Your task to perform on an android device: Search for seafood restaurants on Google Maps Image 0: 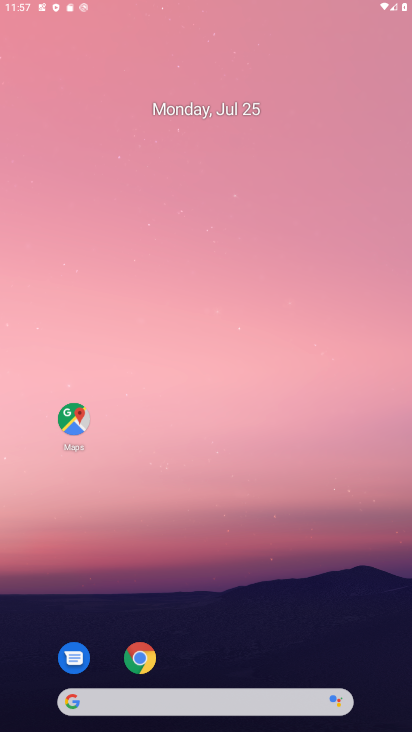
Step 0: drag from (177, 652) to (243, 140)
Your task to perform on an android device: Search for seafood restaurants on Google Maps Image 1: 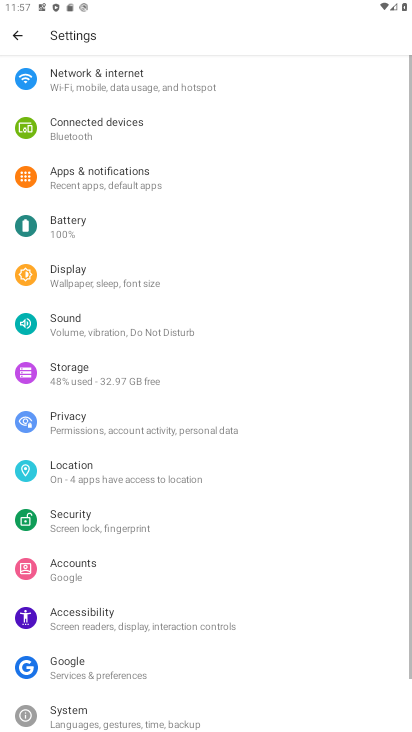
Step 1: press home button
Your task to perform on an android device: Search for seafood restaurants on Google Maps Image 2: 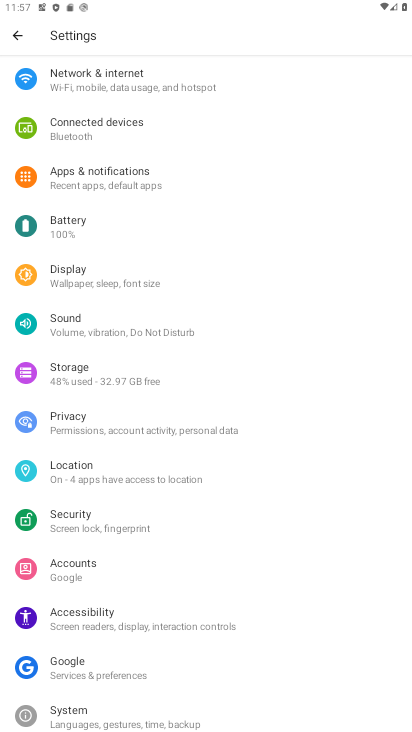
Step 2: drag from (185, 627) to (265, 23)
Your task to perform on an android device: Search for seafood restaurants on Google Maps Image 3: 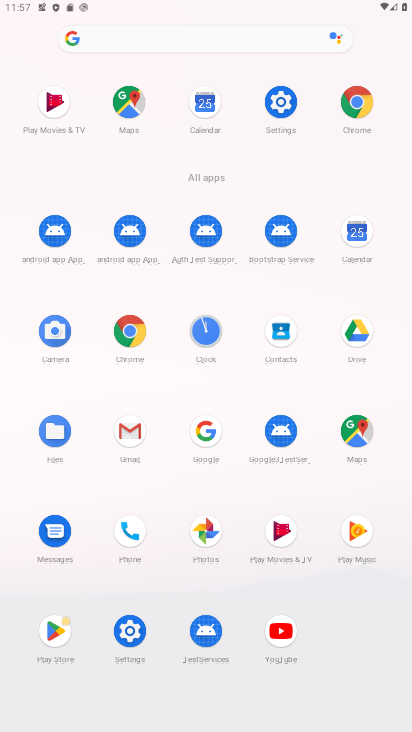
Step 3: click (355, 438)
Your task to perform on an android device: Search for seafood restaurants on Google Maps Image 4: 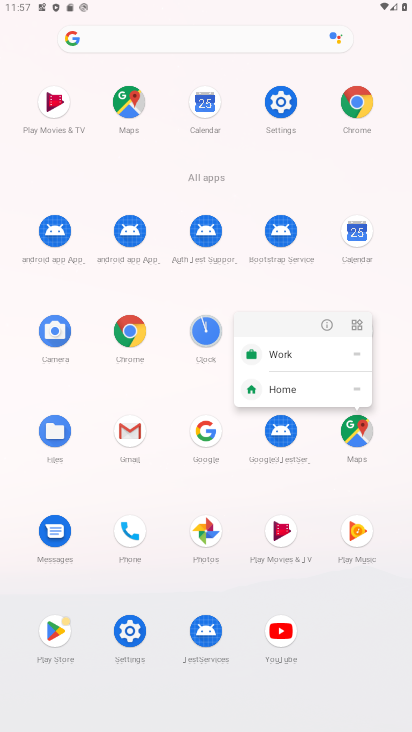
Step 4: click (329, 326)
Your task to perform on an android device: Search for seafood restaurants on Google Maps Image 5: 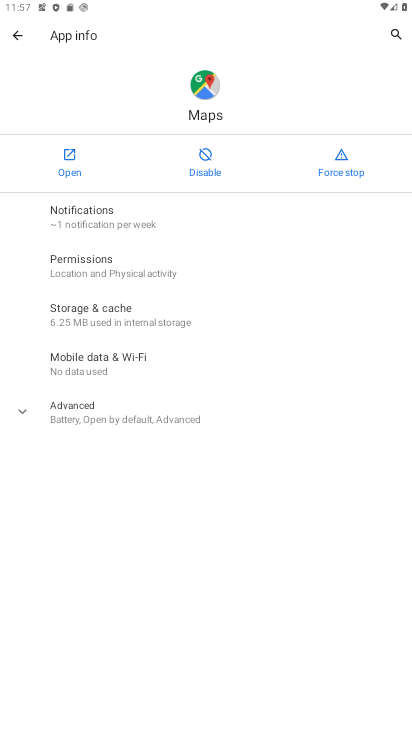
Step 5: click (74, 160)
Your task to perform on an android device: Search for seafood restaurants on Google Maps Image 6: 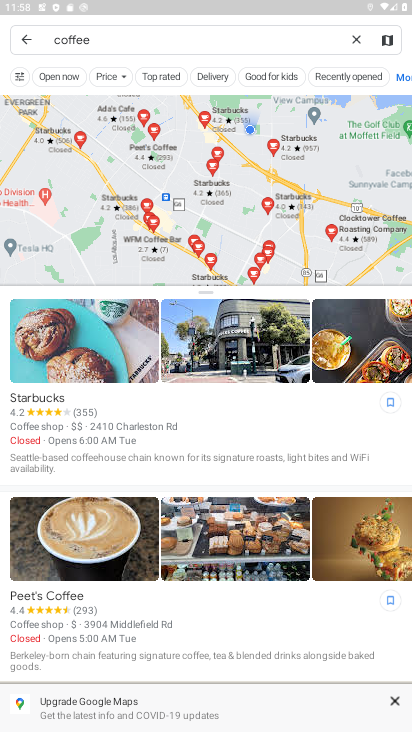
Step 6: drag from (237, 515) to (310, 247)
Your task to perform on an android device: Search for seafood restaurants on Google Maps Image 7: 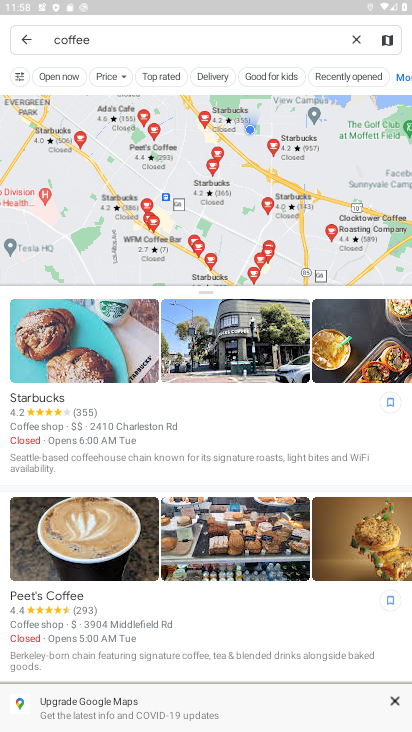
Step 7: drag from (306, 185) to (275, 538)
Your task to perform on an android device: Search for seafood restaurants on Google Maps Image 8: 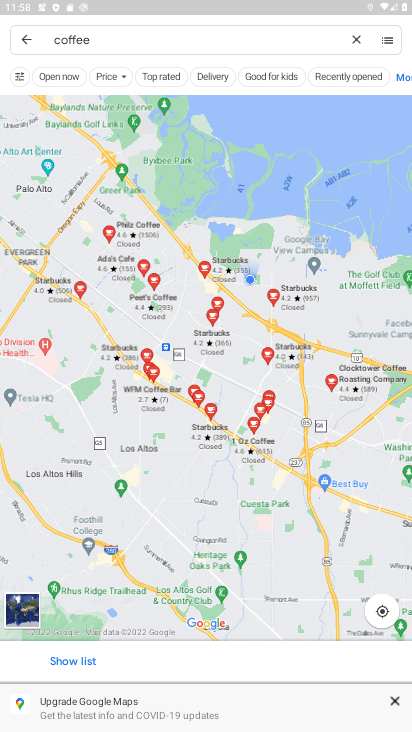
Step 8: click (358, 37)
Your task to perform on an android device: Search for seafood restaurants on Google Maps Image 9: 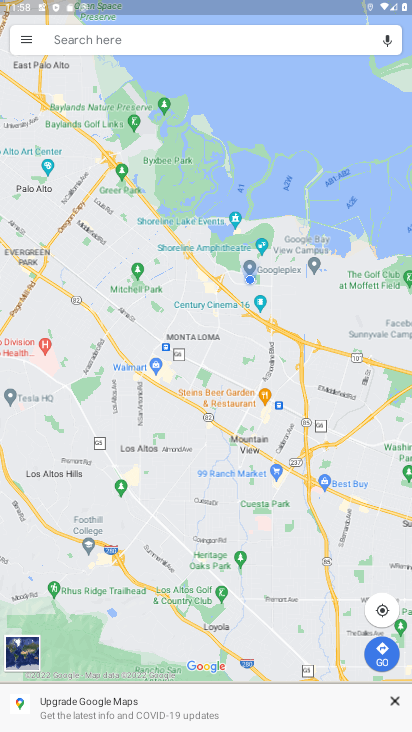
Step 9: click (105, 37)
Your task to perform on an android device: Search for seafood restaurants on Google Maps Image 10: 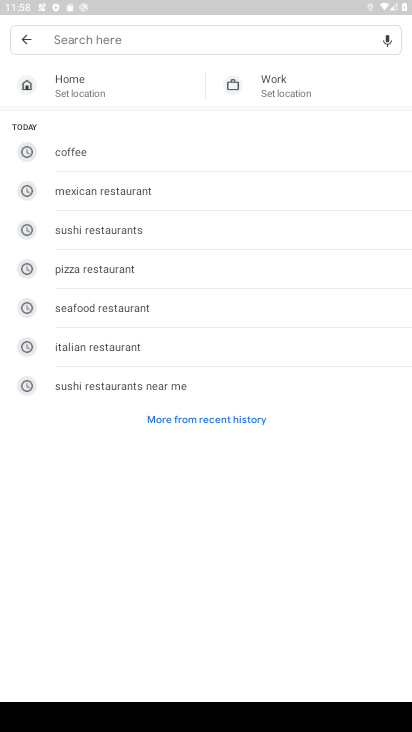
Step 10: click (72, 312)
Your task to perform on an android device: Search for seafood restaurants on Google Maps Image 11: 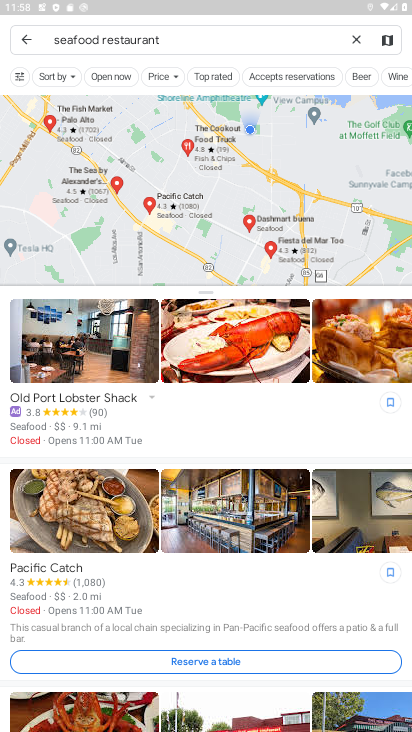
Step 11: task complete